Your task to perform on an android device: Go to privacy settings Image 0: 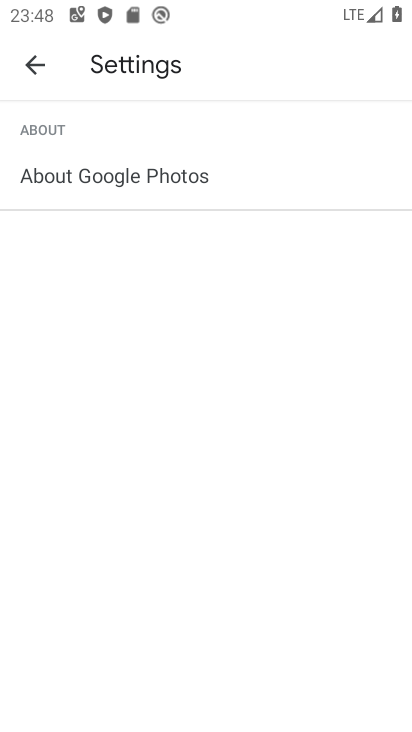
Step 0: press home button
Your task to perform on an android device: Go to privacy settings Image 1: 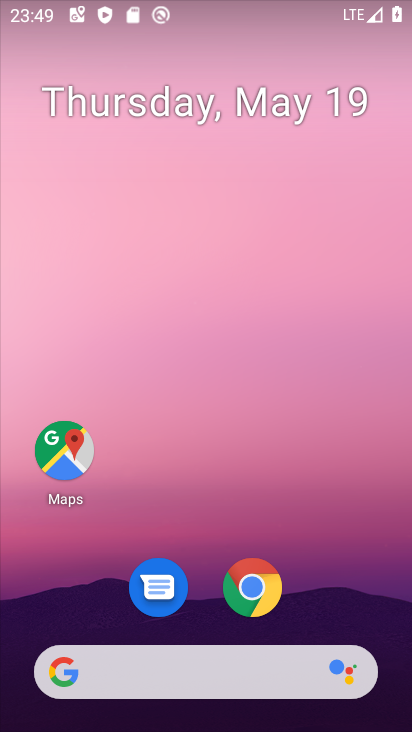
Step 1: drag from (237, 692) to (269, 278)
Your task to perform on an android device: Go to privacy settings Image 2: 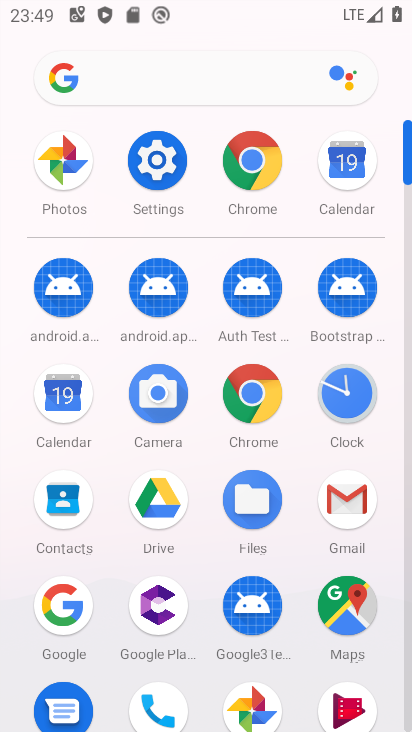
Step 2: click (157, 148)
Your task to perform on an android device: Go to privacy settings Image 3: 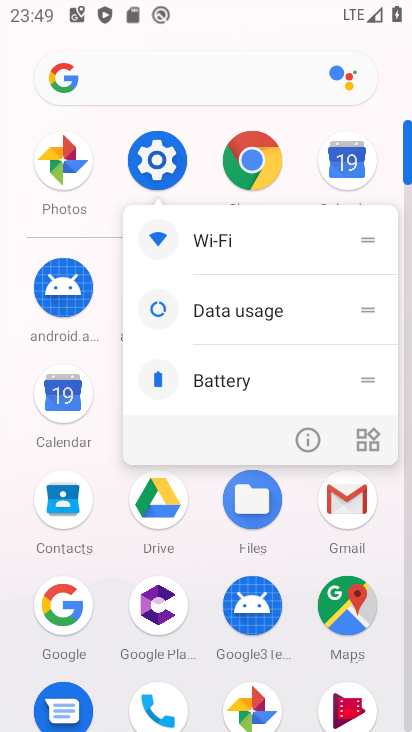
Step 3: click (152, 170)
Your task to perform on an android device: Go to privacy settings Image 4: 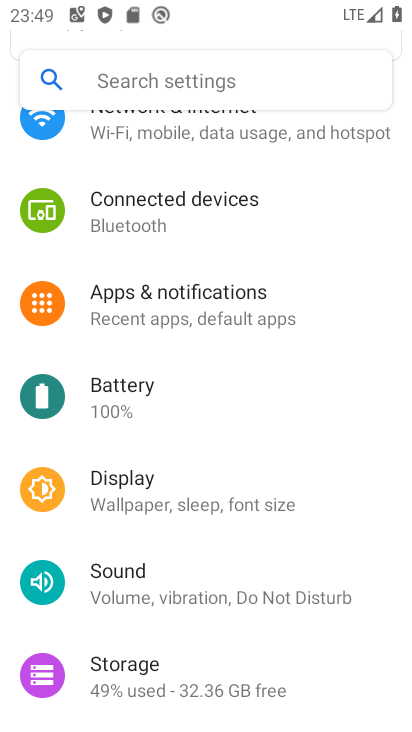
Step 4: drag from (210, 547) to (210, 313)
Your task to perform on an android device: Go to privacy settings Image 5: 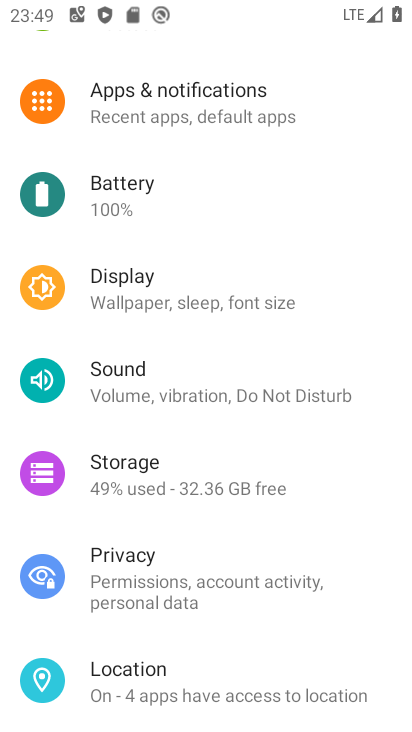
Step 5: click (176, 559)
Your task to perform on an android device: Go to privacy settings Image 6: 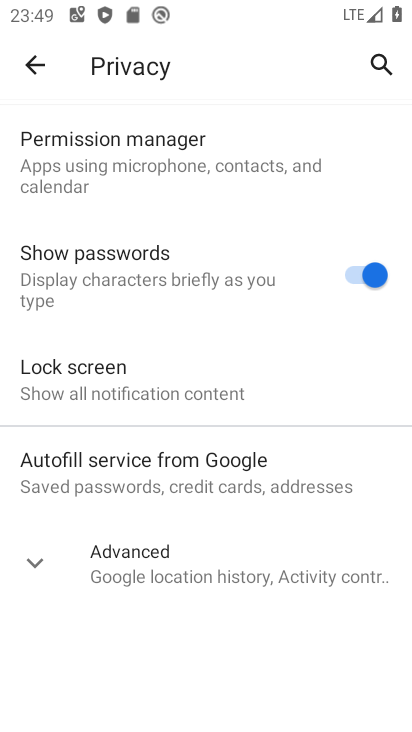
Step 6: task complete